Your task to perform on an android device: Go to Reddit.com Image 0: 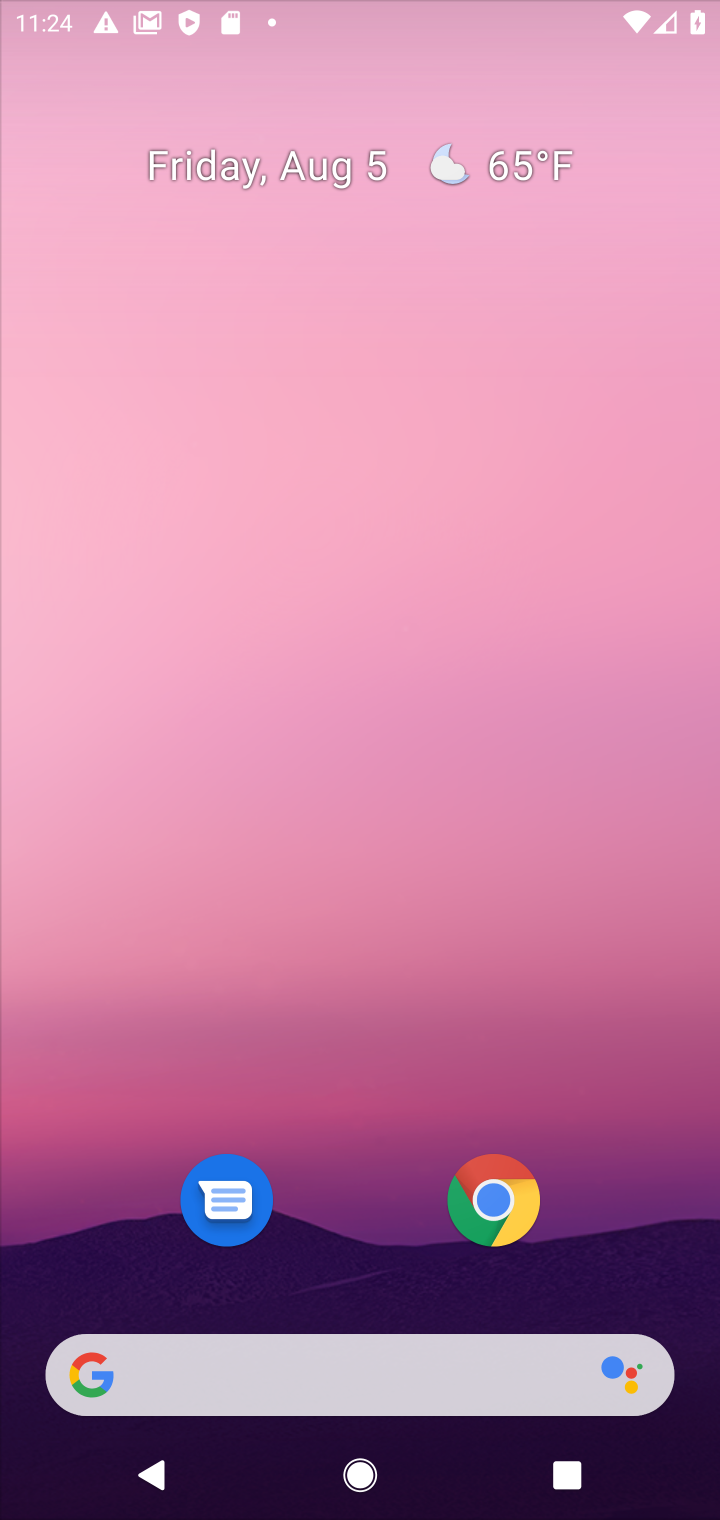
Step 0: press home button
Your task to perform on an android device: Go to Reddit.com Image 1: 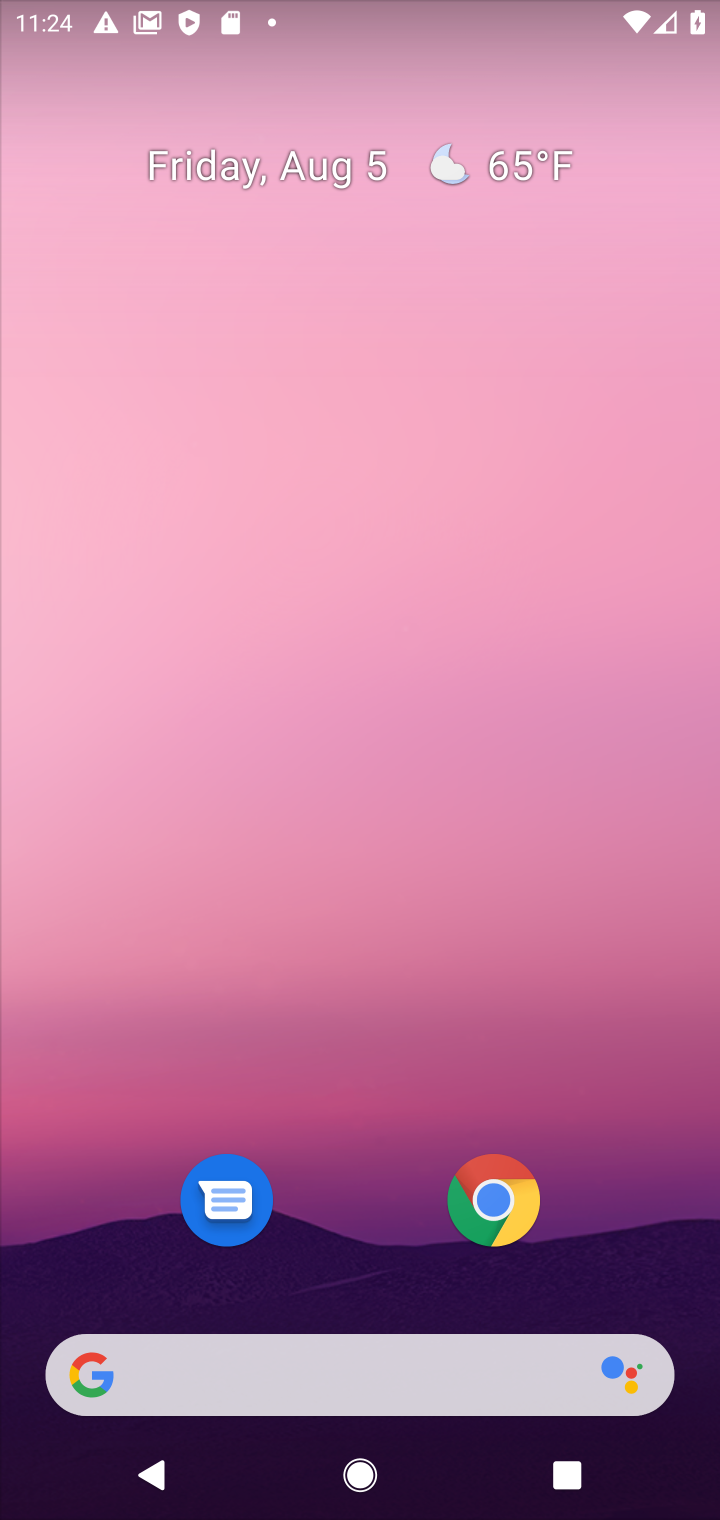
Step 1: click (494, 1207)
Your task to perform on an android device: Go to Reddit.com Image 2: 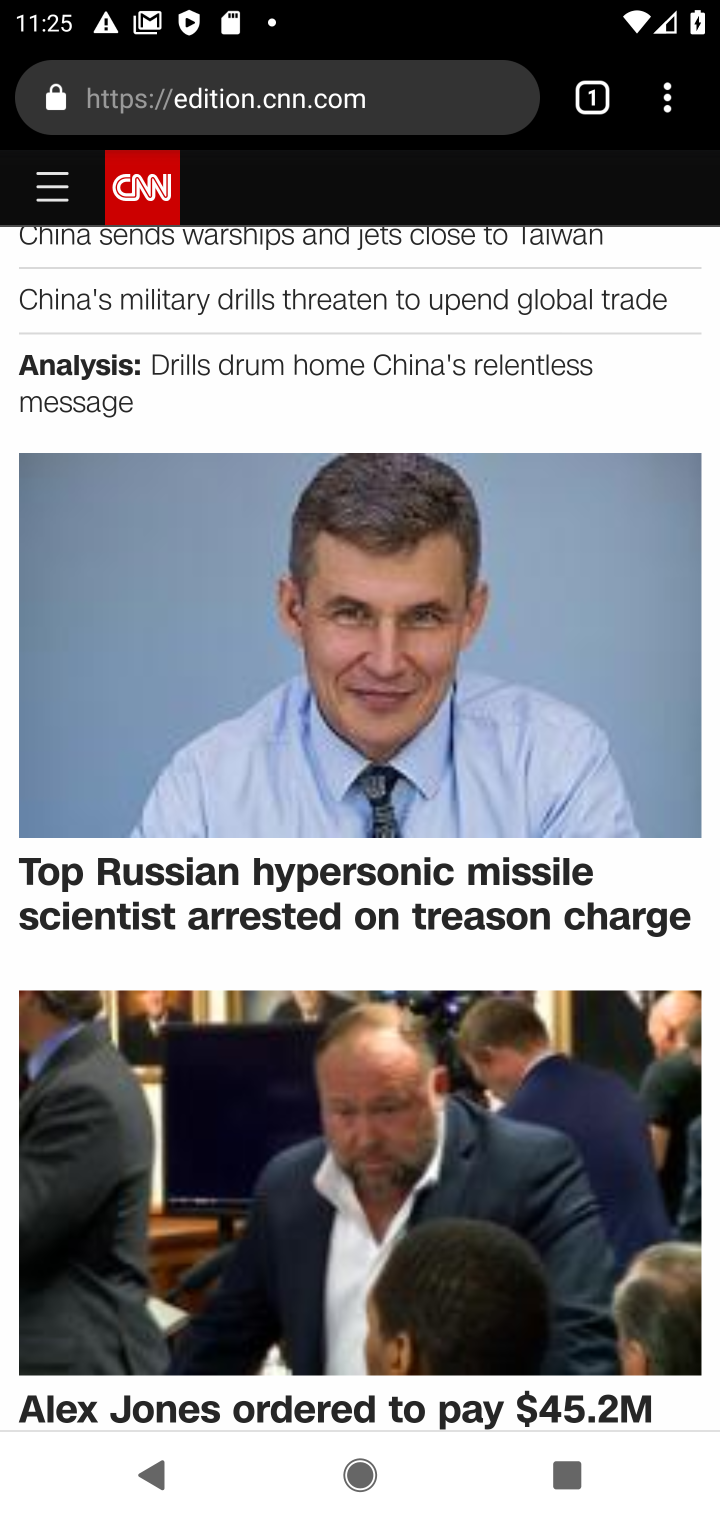
Step 2: click (451, 98)
Your task to perform on an android device: Go to Reddit.com Image 3: 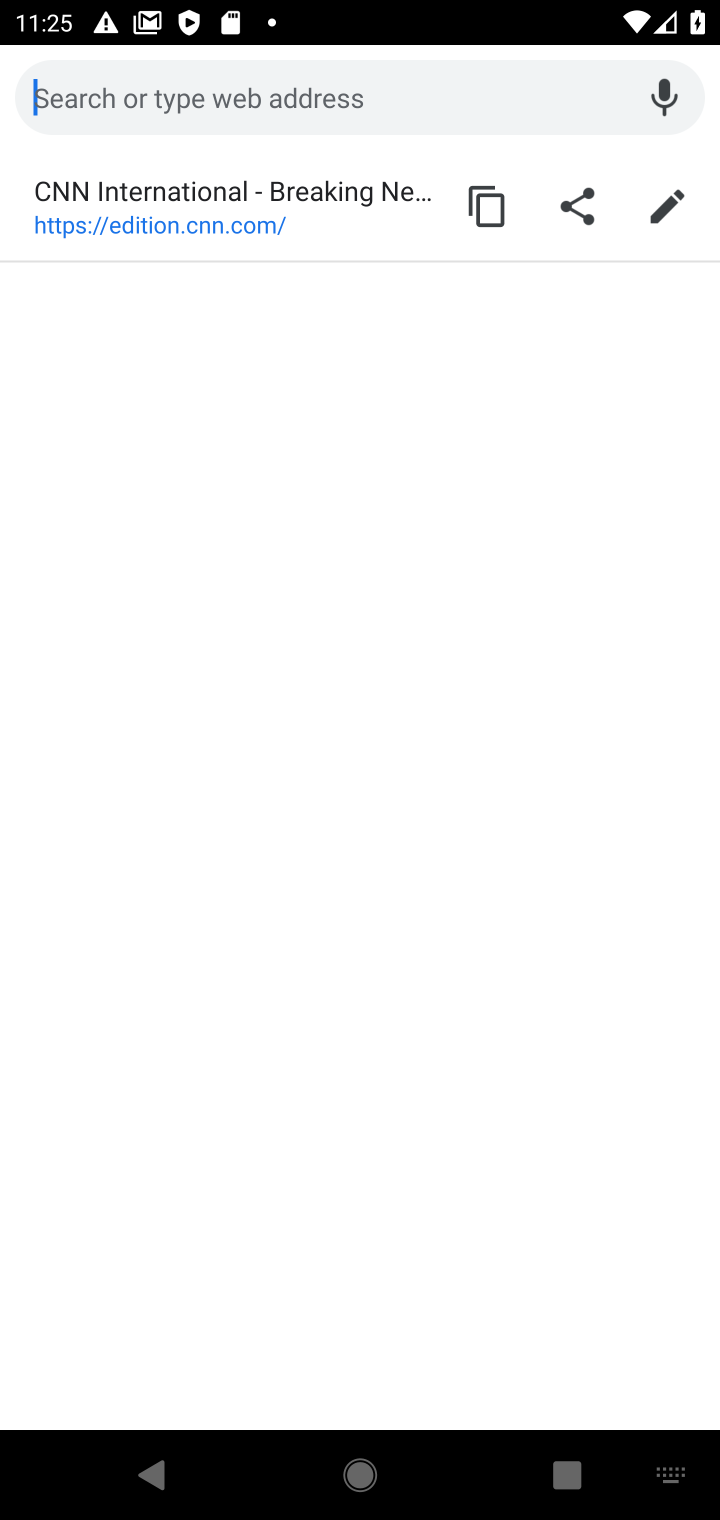
Step 3: type "reddit.com"
Your task to perform on an android device: Go to Reddit.com Image 4: 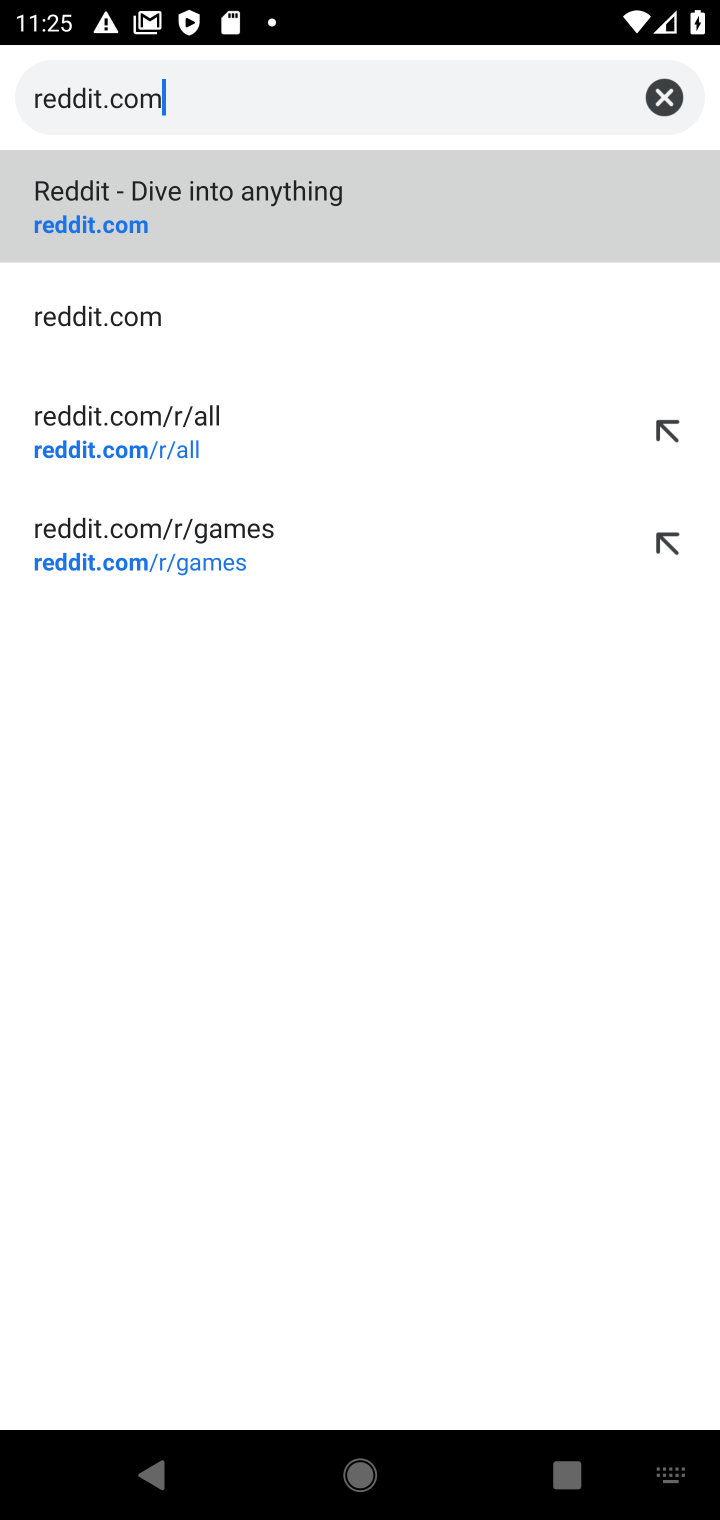
Step 4: click (148, 187)
Your task to perform on an android device: Go to Reddit.com Image 5: 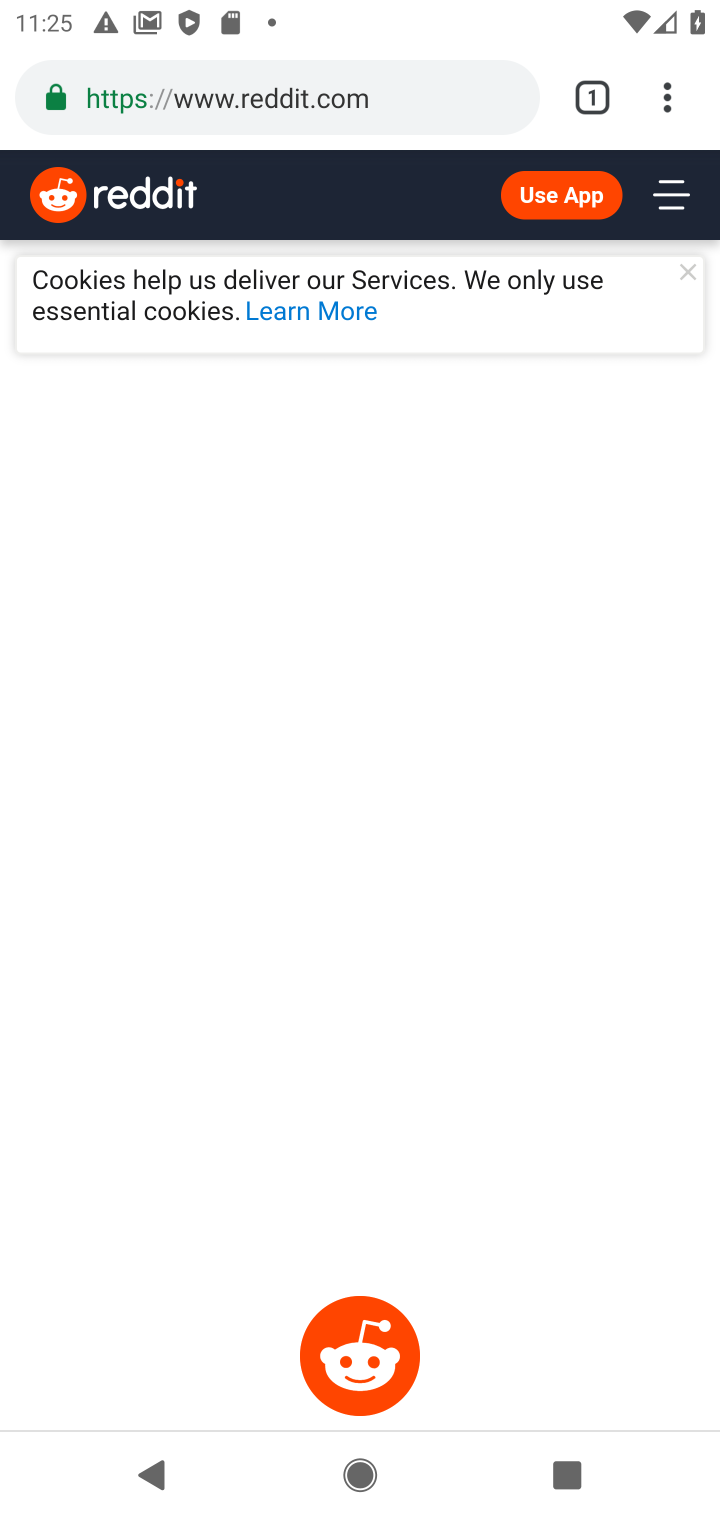
Step 5: task complete